Your task to perform on an android device: check storage Image 0: 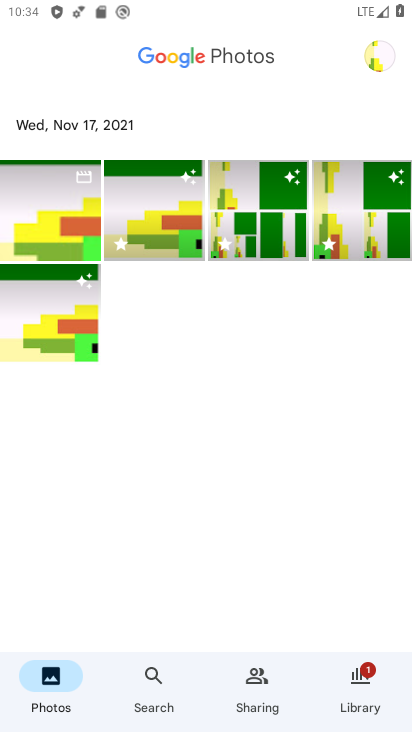
Step 0: press home button
Your task to perform on an android device: check storage Image 1: 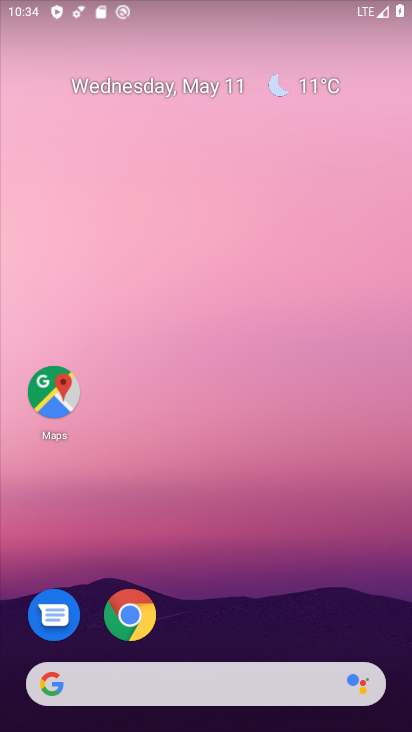
Step 1: drag from (273, 579) to (251, 128)
Your task to perform on an android device: check storage Image 2: 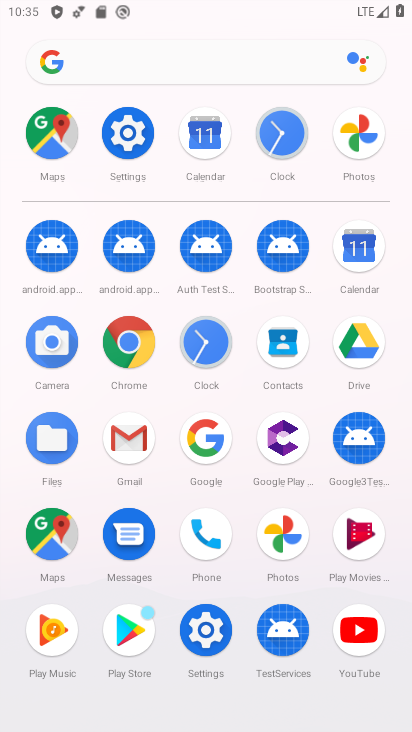
Step 2: click (122, 124)
Your task to perform on an android device: check storage Image 3: 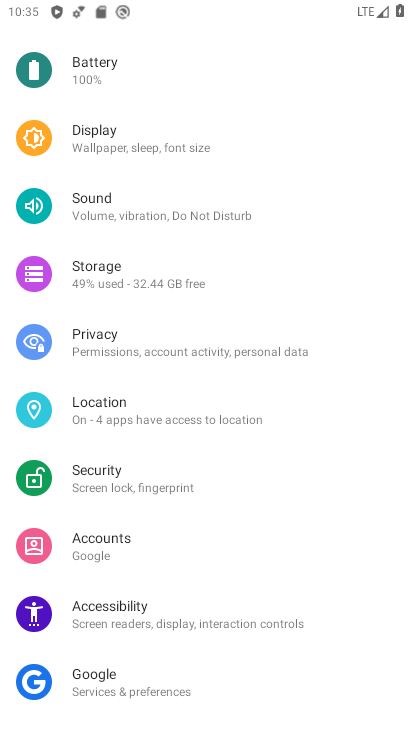
Step 3: click (130, 284)
Your task to perform on an android device: check storage Image 4: 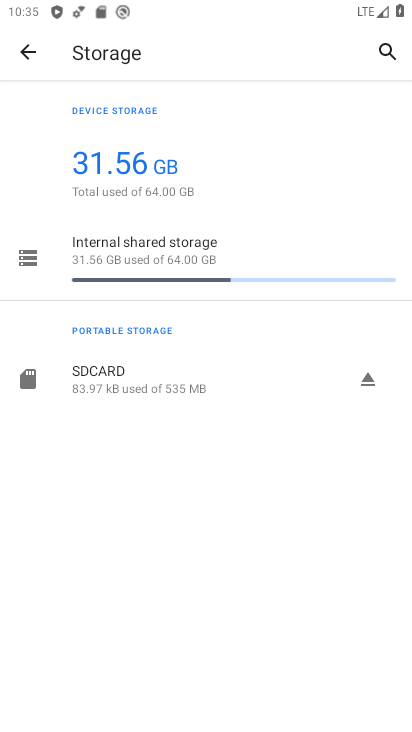
Step 4: task complete